Your task to perform on an android device: turn off notifications settings in the gmail app Image 0: 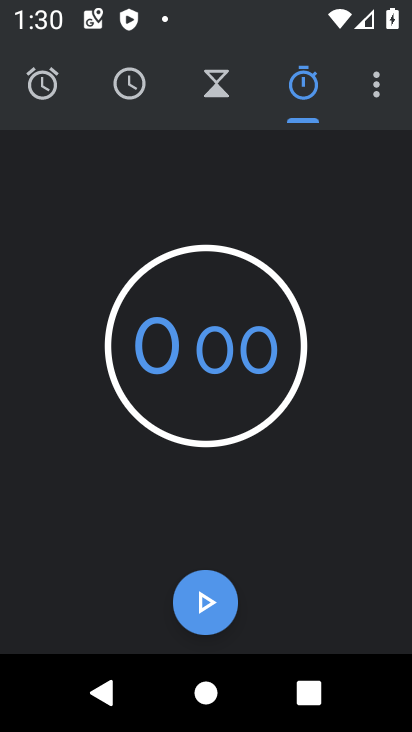
Step 0: press home button
Your task to perform on an android device: turn off notifications settings in the gmail app Image 1: 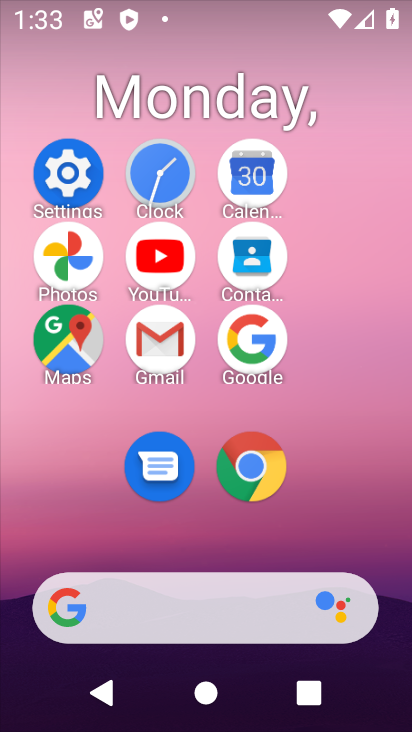
Step 1: click (160, 347)
Your task to perform on an android device: turn off notifications settings in the gmail app Image 2: 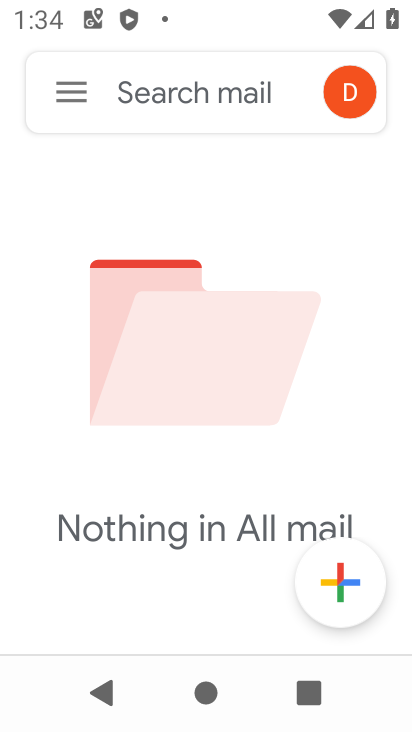
Step 2: click (83, 102)
Your task to perform on an android device: turn off notifications settings in the gmail app Image 3: 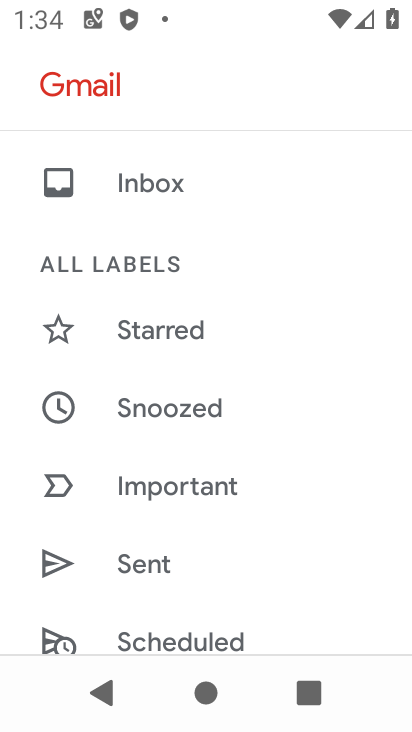
Step 3: drag from (182, 574) to (230, 132)
Your task to perform on an android device: turn off notifications settings in the gmail app Image 4: 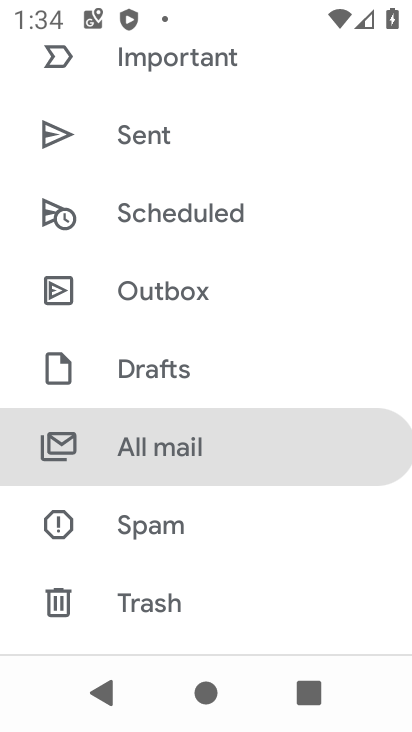
Step 4: drag from (221, 535) to (261, 121)
Your task to perform on an android device: turn off notifications settings in the gmail app Image 5: 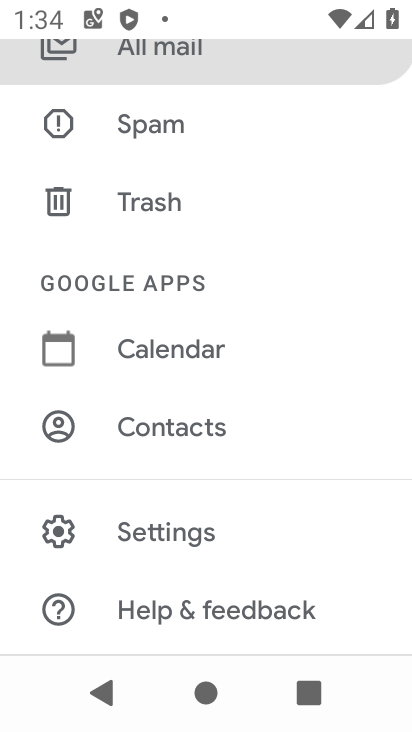
Step 5: click (209, 527)
Your task to perform on an android device: turn off notifications settings in the gmail app Image 6: 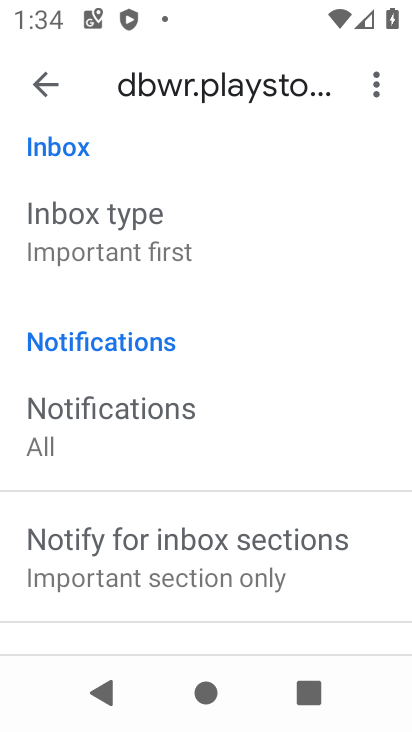
Step 6: click (208, 411)
Your task to perform on an android device: turn off notifications settings in the gmail app Image 7: 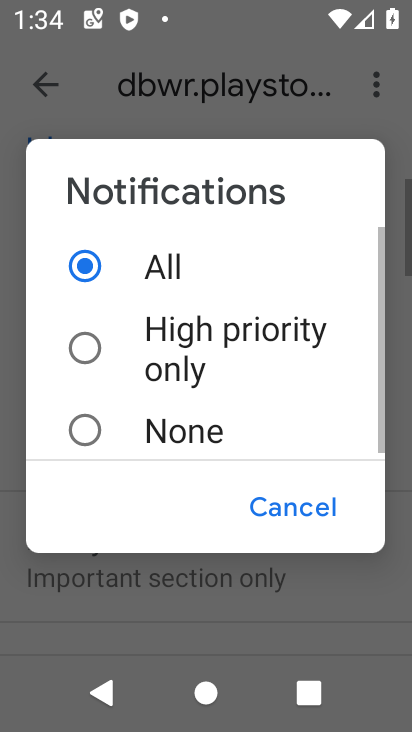
Step 7: click (171, 432)
Your task to perform on an android device: turn off notifications settings in the gmail app Image 8: 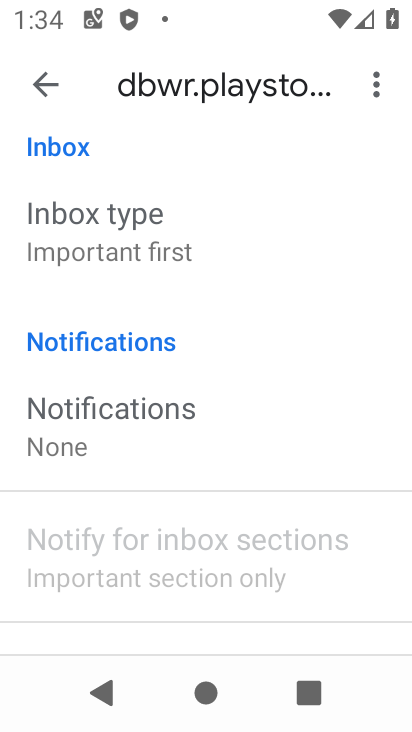
Step 8: task complete